Your task to perform on an android device: check android version Image 0: 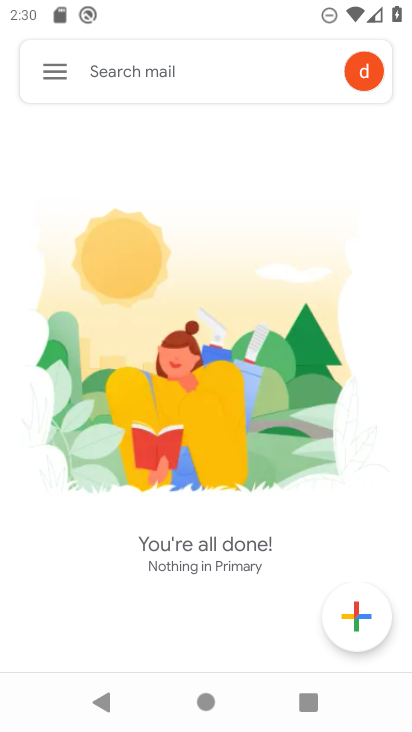
Step 0: click (47, 78)
Your task to perform on an android device: check android version Image 1: 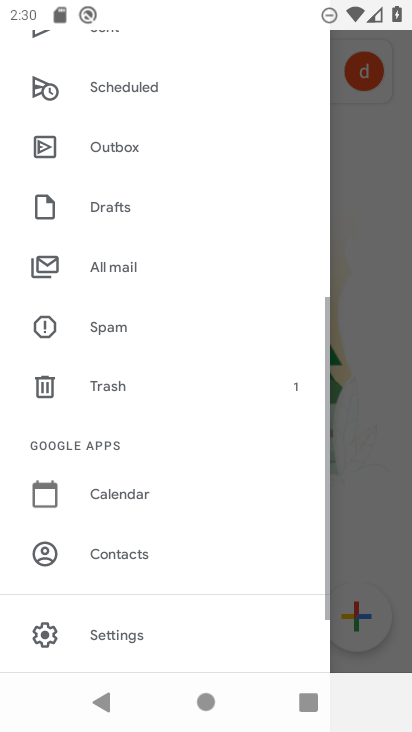
Step 1: press home button
Your task to perform on an android device: check android version Image 2: 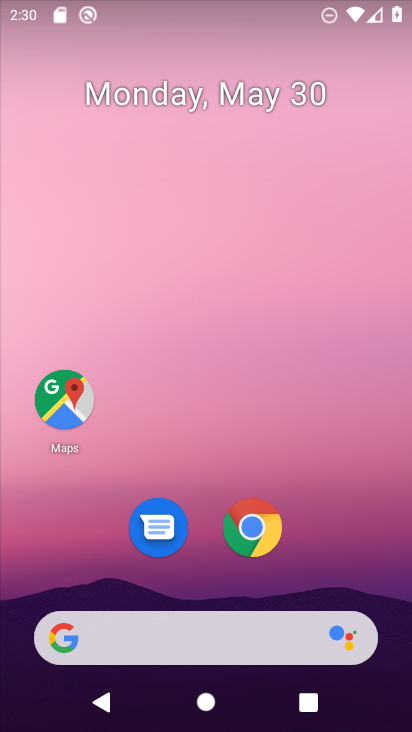
Step 2: drag from (250, 698) to (202, 176)
Your task to perform on an android device: check android version Image 3: 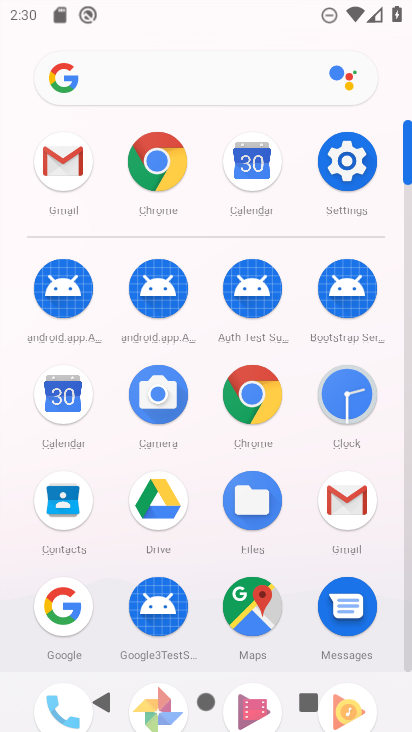
Step 3: click (344, 160)
Your task to perform on an android device: check android version Image 4: 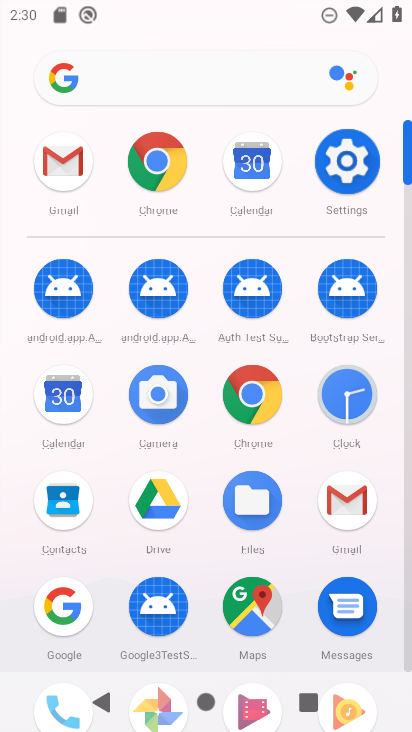
Step 4: click (344, 160)
Your task to perform on an android device: check android version Image 5: 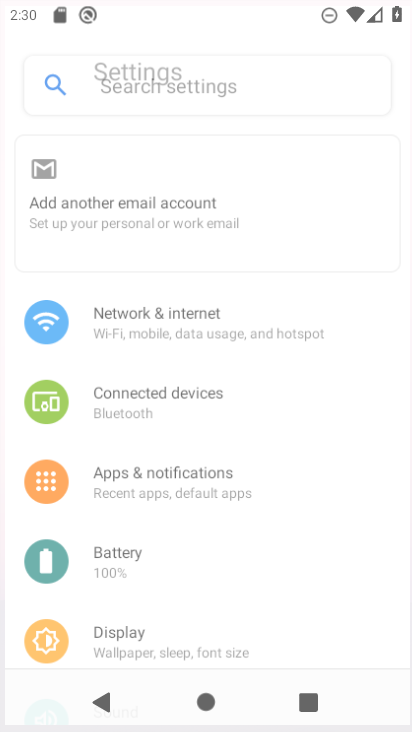
Step 5: click (344, 160)
Your task to perform on an android device: check android version Image 6: 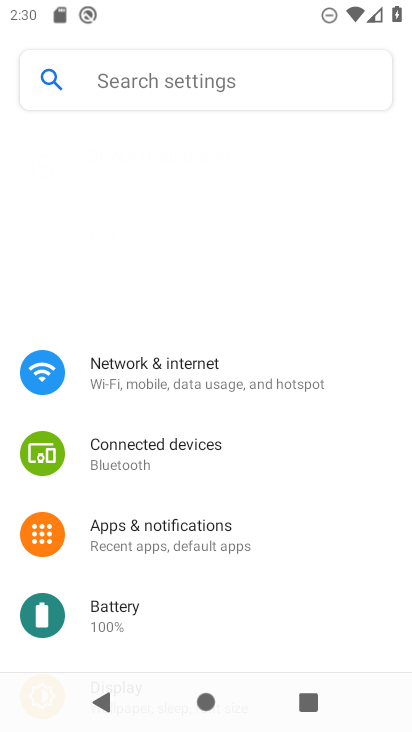
Step 6: click (344, 160)
Your task to perform on an android device: check android version Image 7: 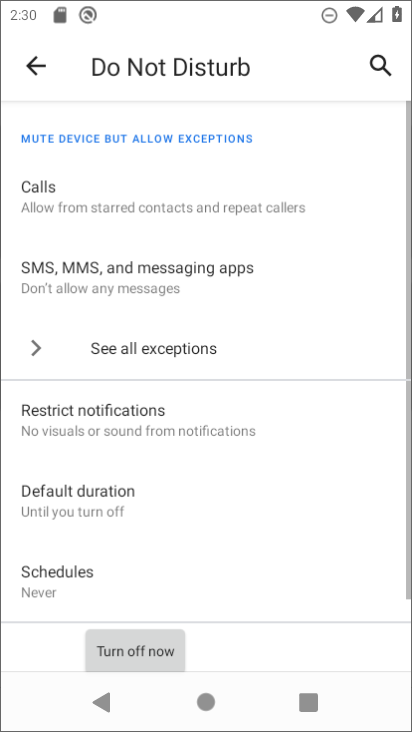
Step 7: drag from (146, 335) to (146, 172)
Your task to perform on an android device: check android version Image 8: 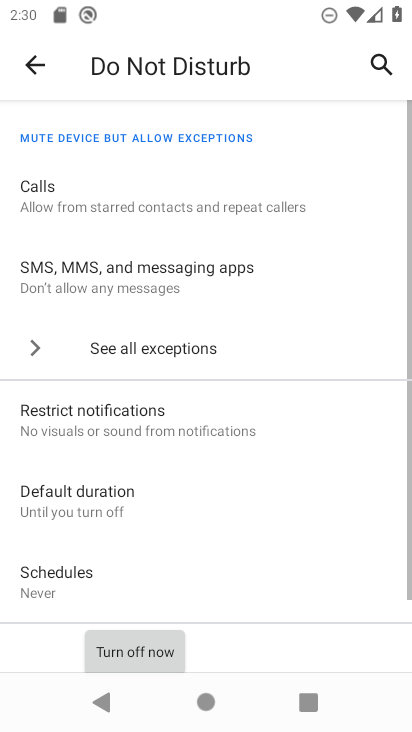
Step 8: drag from (197, 244) to (199, 177)
Your task to perform on an android device: check android version Image 9: 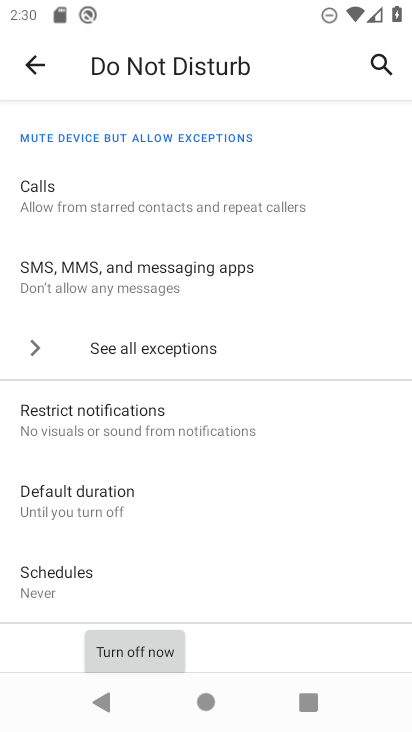
Step 9: click (31, 64)
Your task to perform on an android device: check android version Image 10: 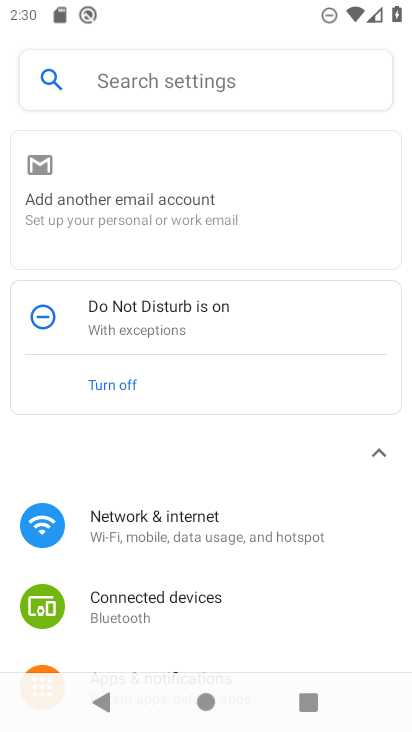
Step 10: drag from (221, 161) to (221, 50)
Your task to perform on an android device: check android version Image 11: 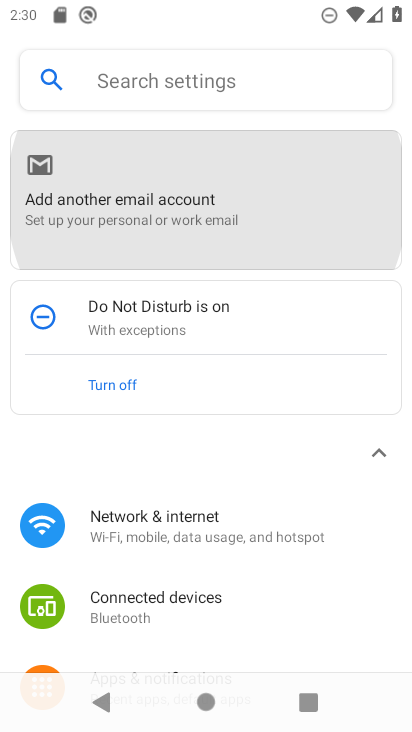
Step 11: drag from (234, 219) to (234, 115)
Your task to perform on an android device: check android version Image 12: 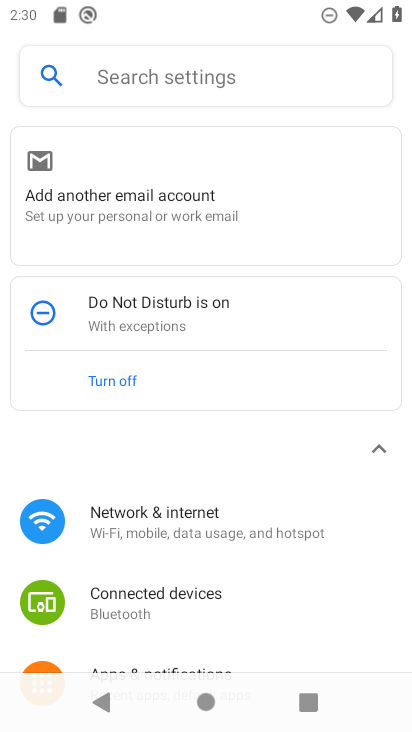
Step 12: drag from (211, 266) to (206, 72)
Your task to perform on an android device: check android version Image 13: 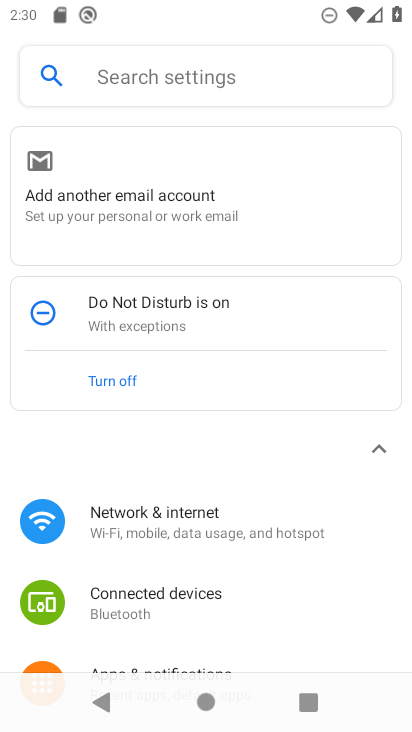
Step 13: drag from (195, 462) to (195, 178)
Your task to perform on an android device: check android version Image 14: 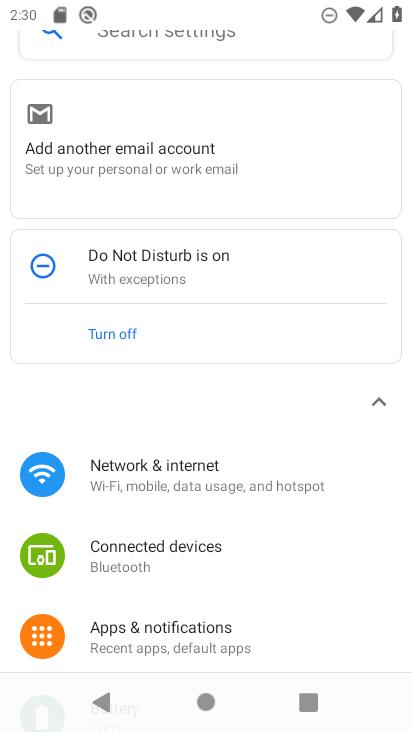
Step 14: drag from (217, 374) to (221, 208)
Your task to perform on an android device: check android version Image 15: 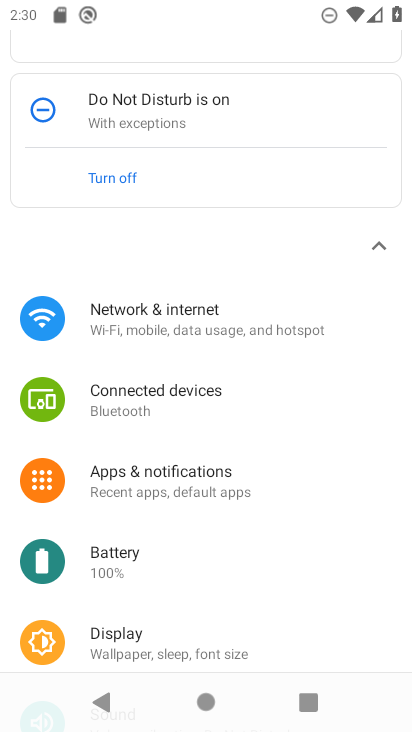
Step 15: drag from (190, 428) to (187, 208)
Your task to perform on an android device: check android version Image 16: 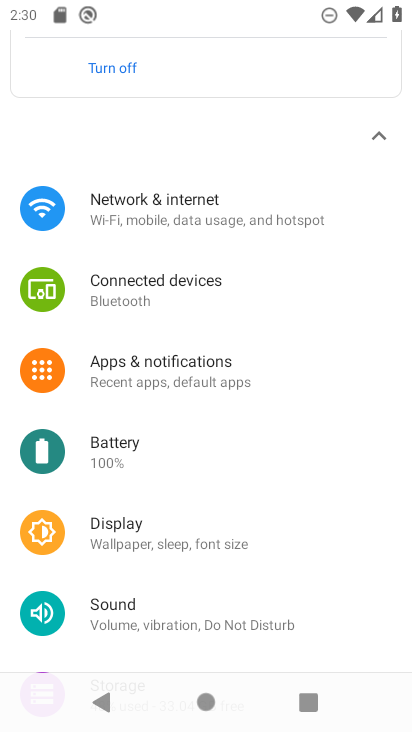
Step 16: drag from (205, 340) to (205, 261)
Your task to perform on an android device: check android version Image 17: 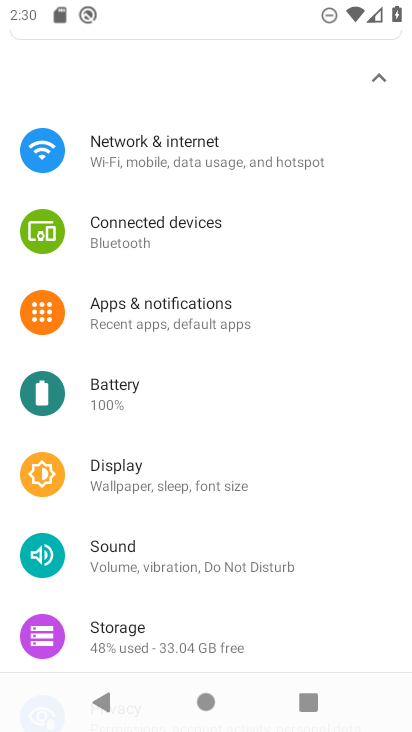
Step 17: drag from (214, 436) to (217, 201)
Your task to perform on an android device: check android version Image 18: 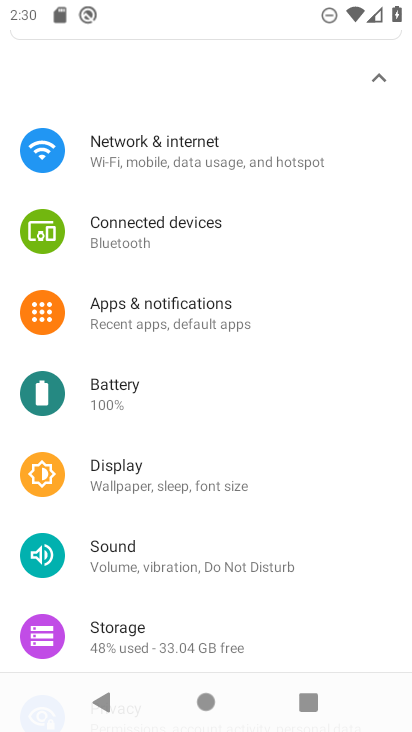
Step 18: drag from (236, 479) to (219, 203)
Your task to perform on an android device: check android version Image 19: 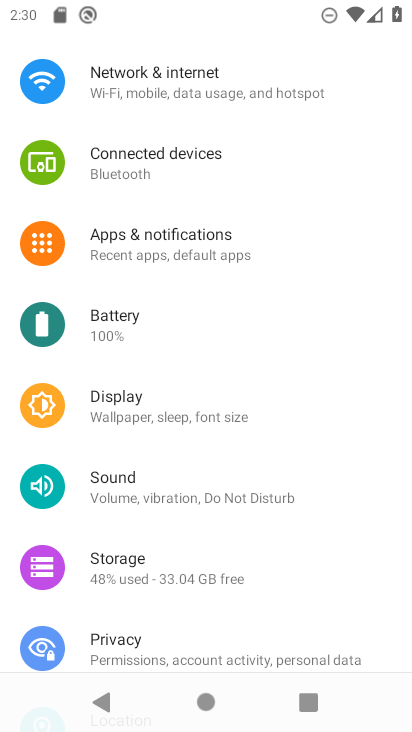
Step 19: drag from (199, 444) to (185, 241)
Your task to perform on an android device: check android version Image 20: 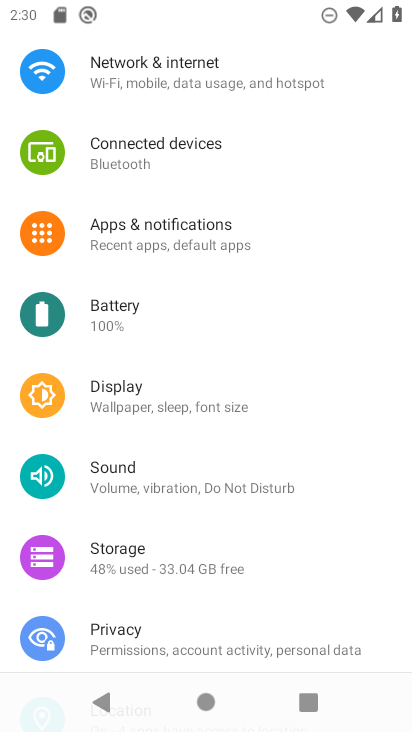
Step 20: drag from (224, 586) to (191, 282)
Your task to perform on an android device: check android version Image 21: 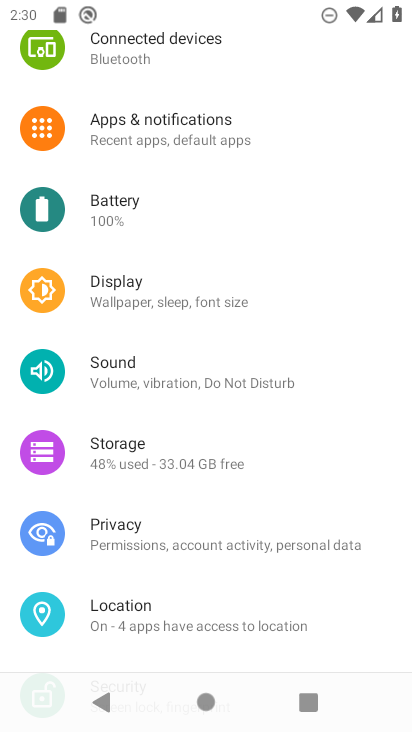
Step 21: drag from (169, 372) to (158, 110)
Your task to perform on an android device: check android version Image 22: 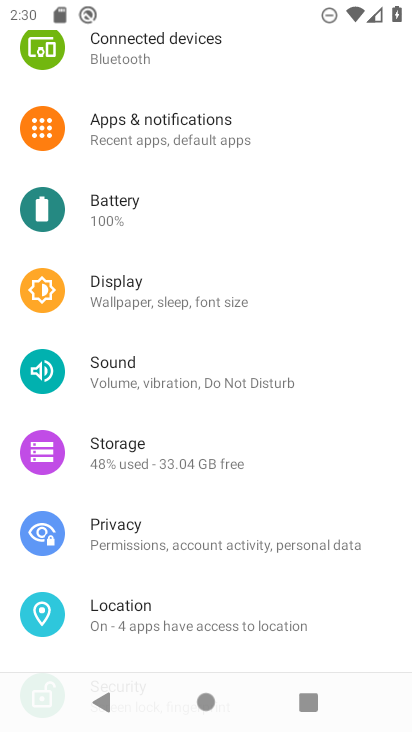
Step 22: drag from (162, 368) to (171, 126)
Your task to perform on an android device: check android version Image 23: 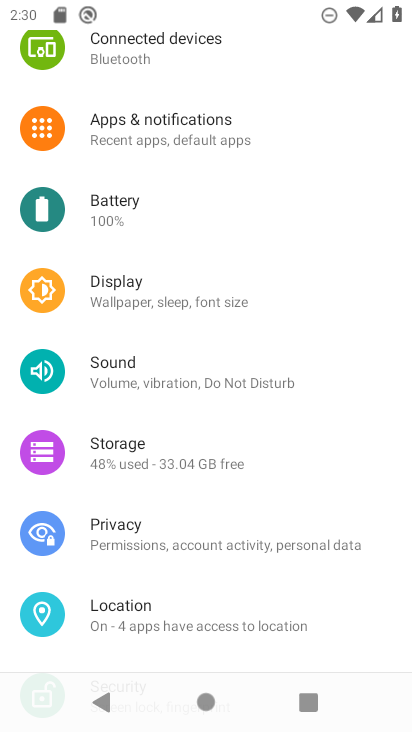
Step 23: drag from (180, 522) to (180, 148)
Your task to perform on an android device: check android version Image 24: 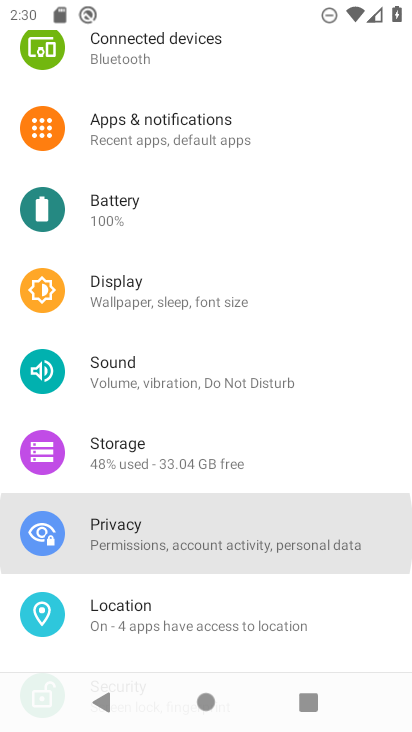
Step 24: drag from (266, 502) to (257, 120)
Your task to perform on an android device: check android version Image 25: 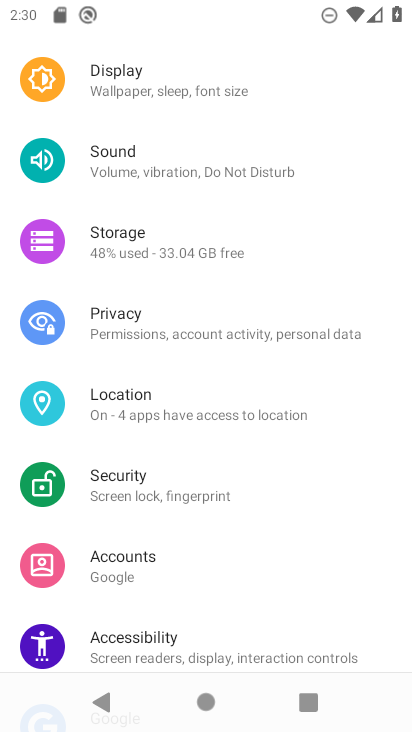
Step 25: drag from (241, 528) to (170, 121)
Your task to perform on an android device: check android version Image 26: 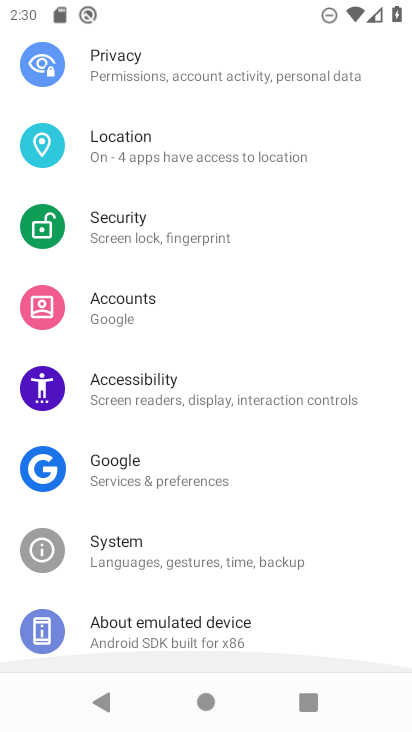
Step 26: drag from (190, 506) to (164, 127)
Your task to perform on an android device: check android version Image 27: 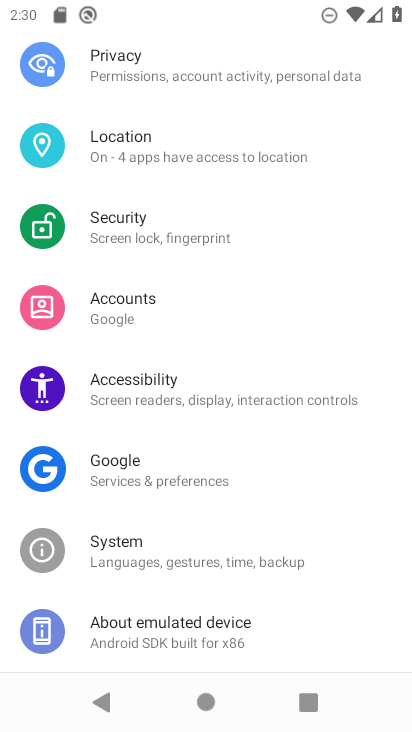
Step 27: click (151, 625)
Your task to perform on an android device: check android version Image 28: 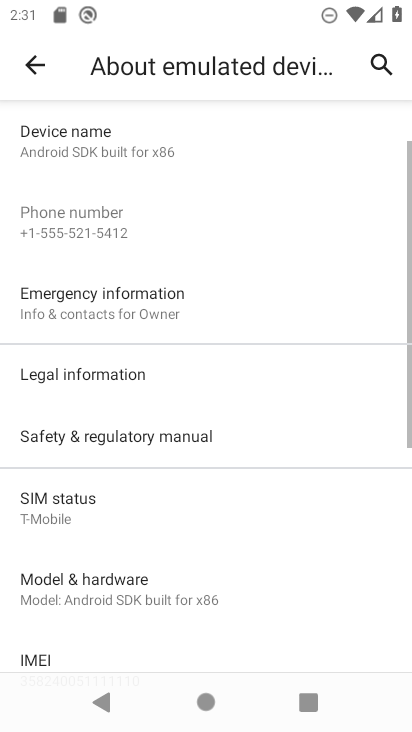
Step 28: task complete